Your task to perform on an android device: change the clock display to analog Image 0: 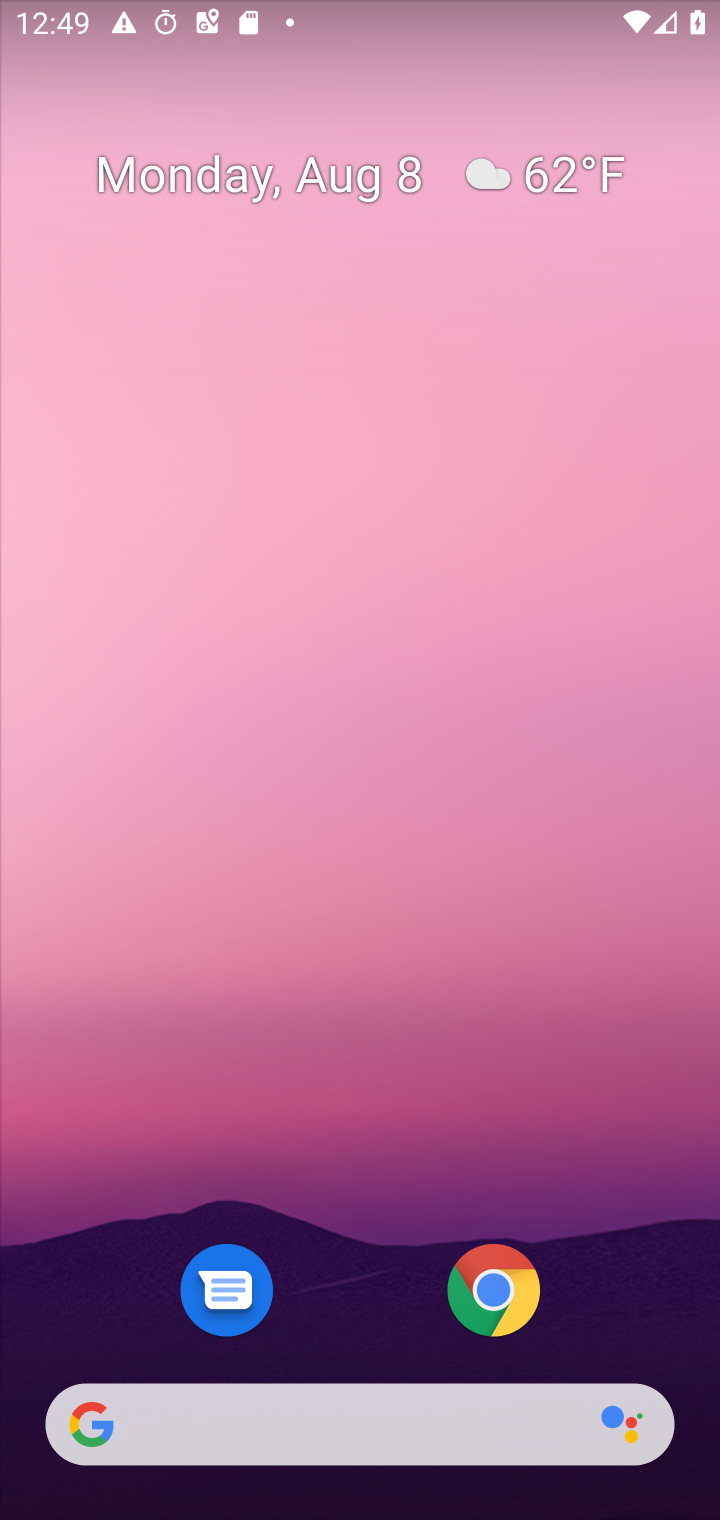
Step 0: drag from (341, 1235) to (393, 138)
Your task to perform on an android device: change the clock display to analog Image 1: 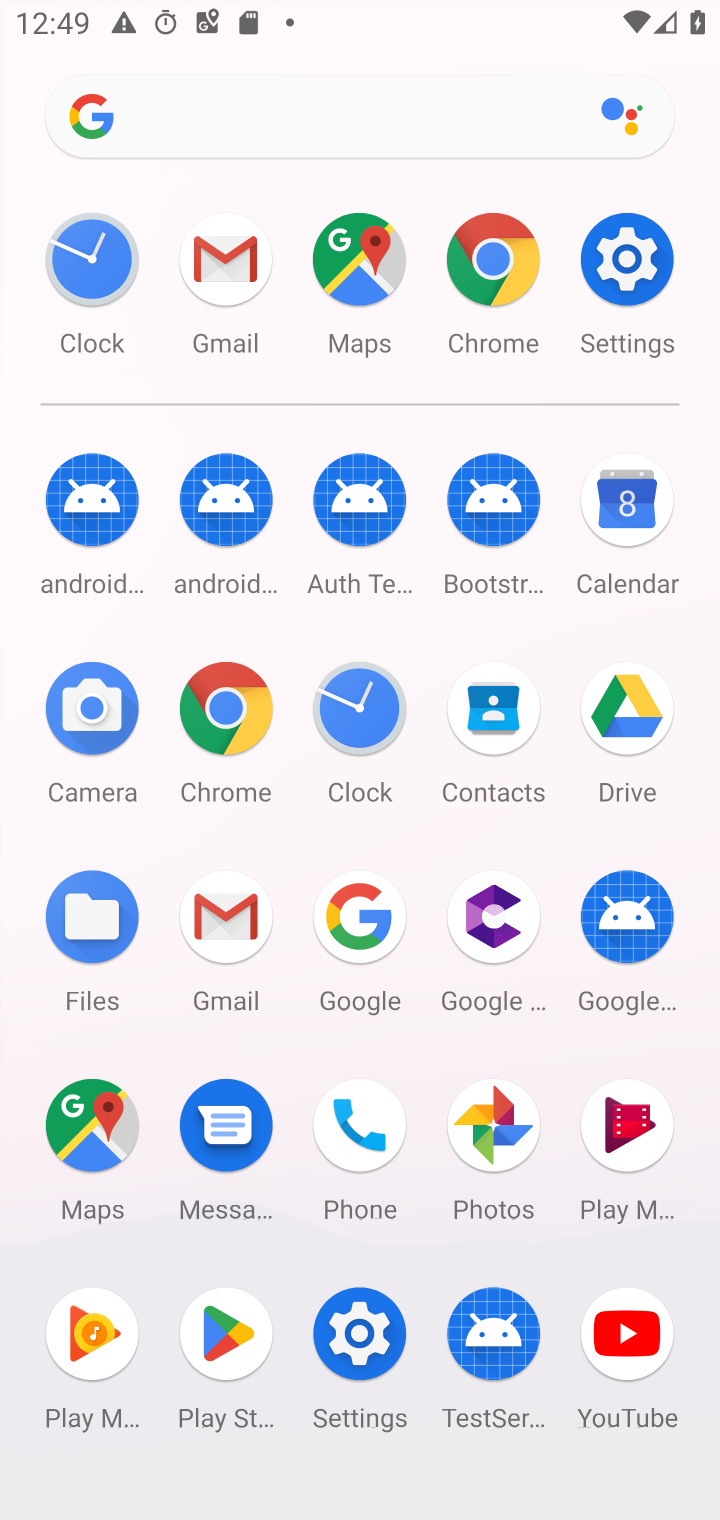
Step 1: click (380, 722)
Your task to perform on an android device: change the clock display to analog Image 2: 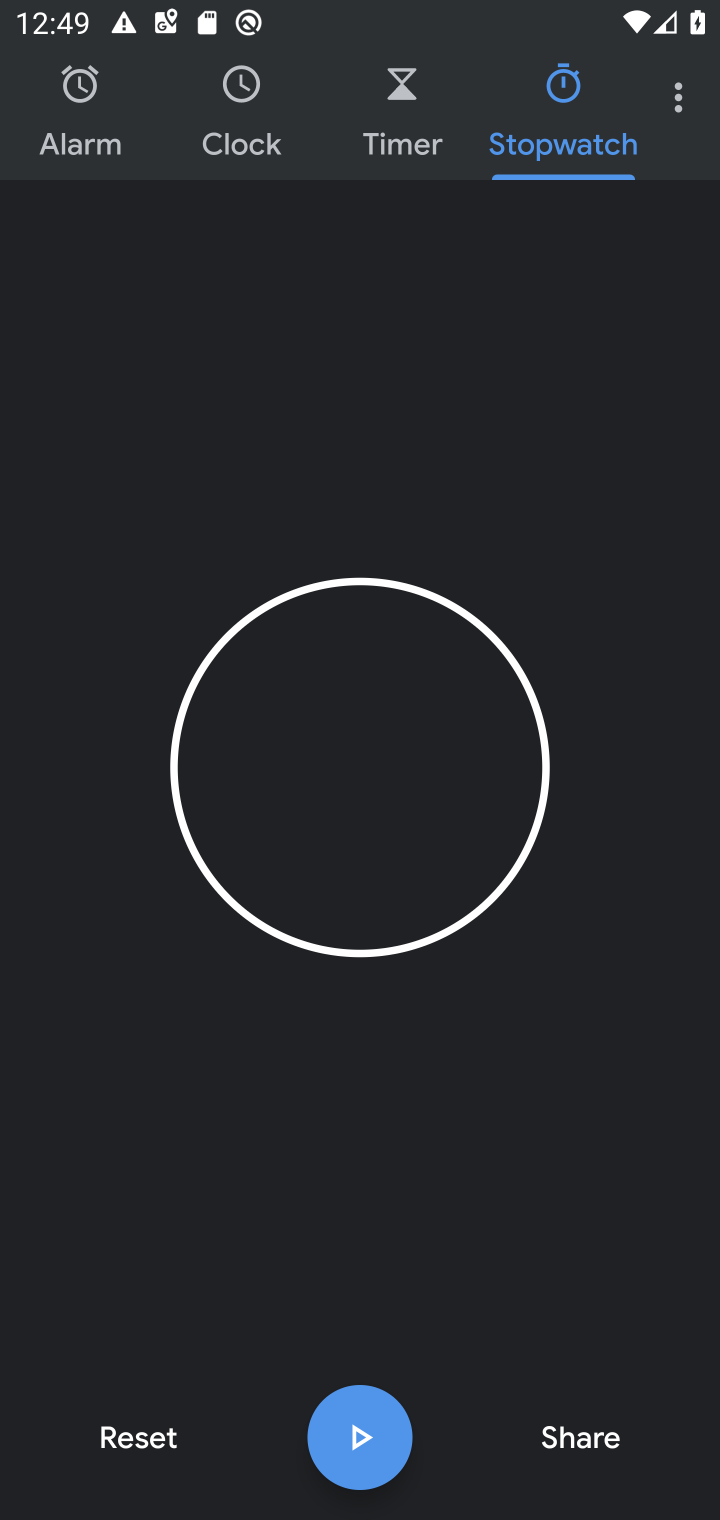
Step 2: click (681, 128)
Your task to perform on an android device: change the clock display to analog Image 3: 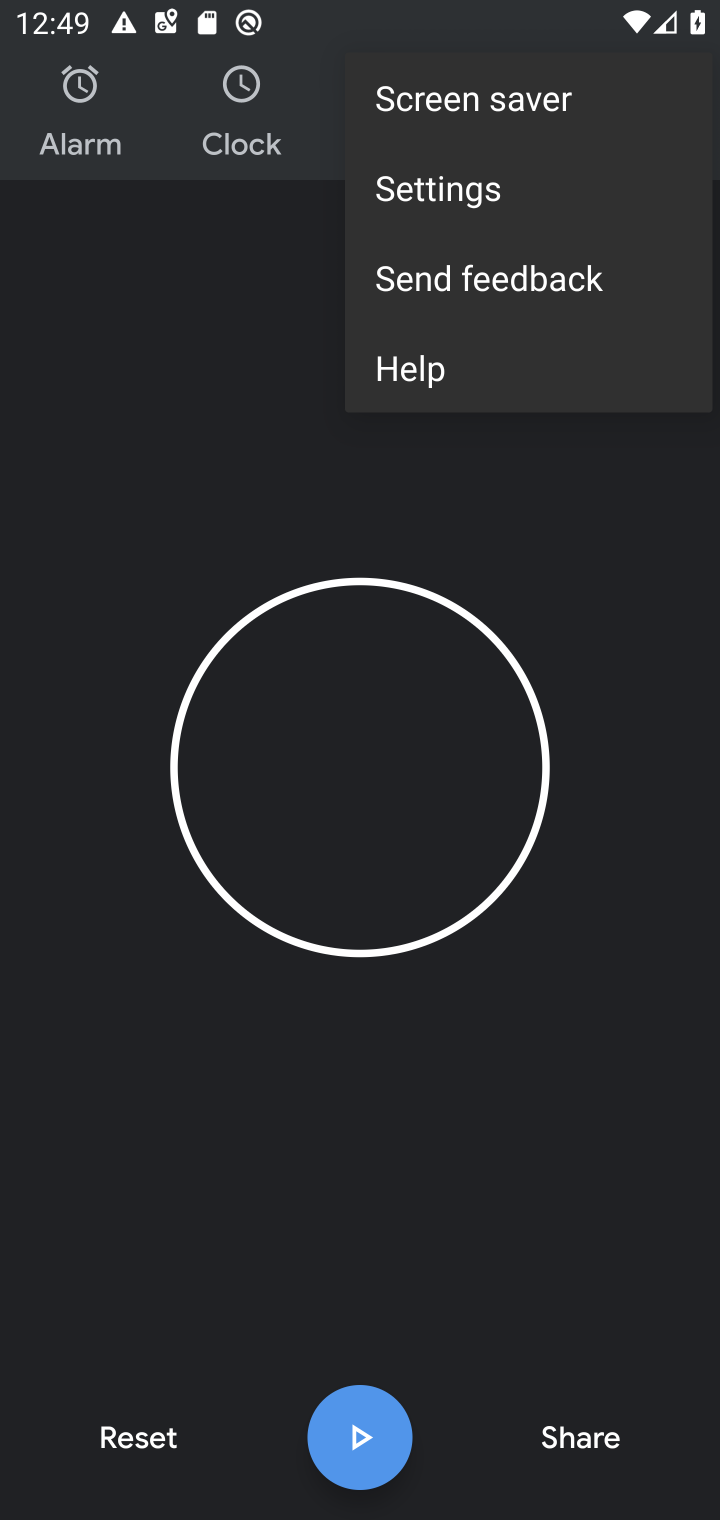
Step 3: click (463, 197)
Your task to perform on an android device: change the clock display to analog Image 4: 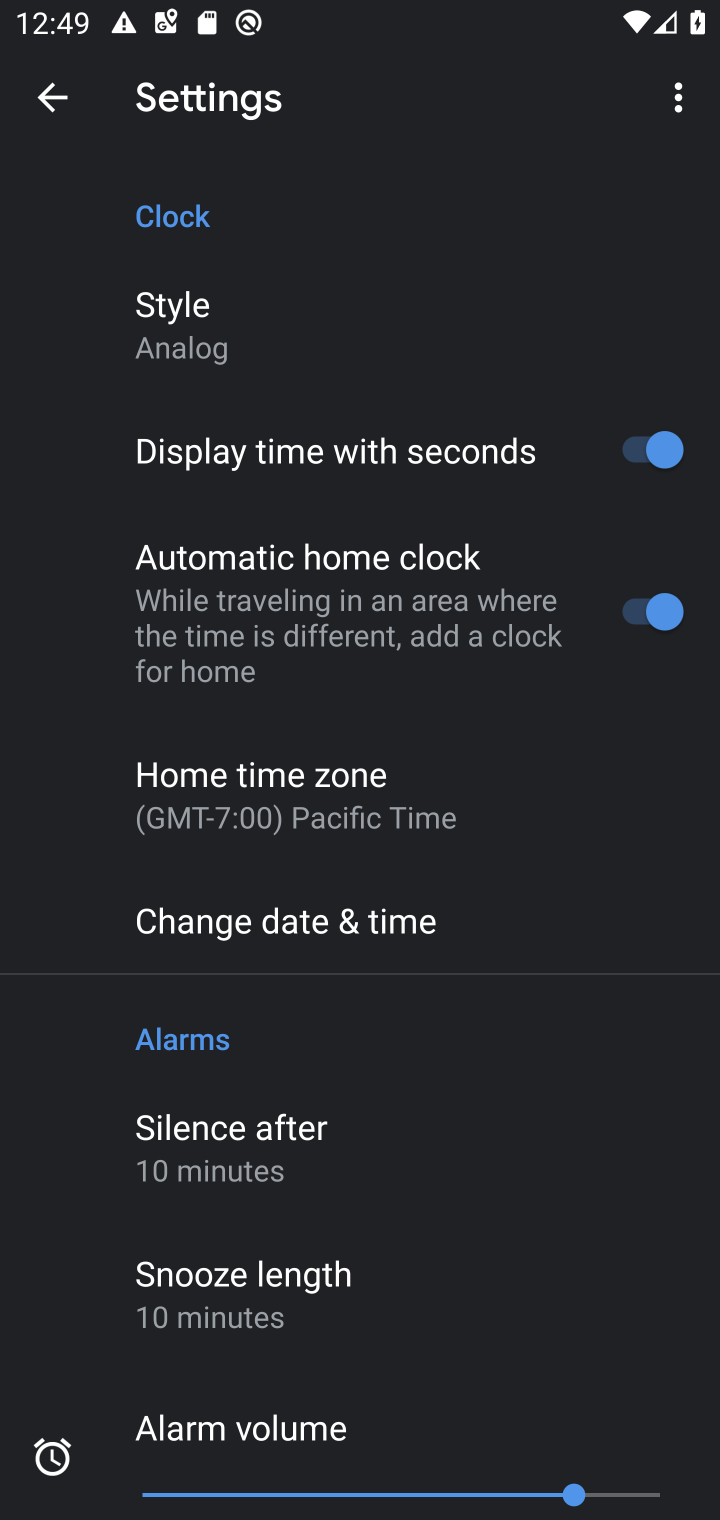
Step 4: task complete